Your task to perform on an android device: Go to accessibility settings Image 0: 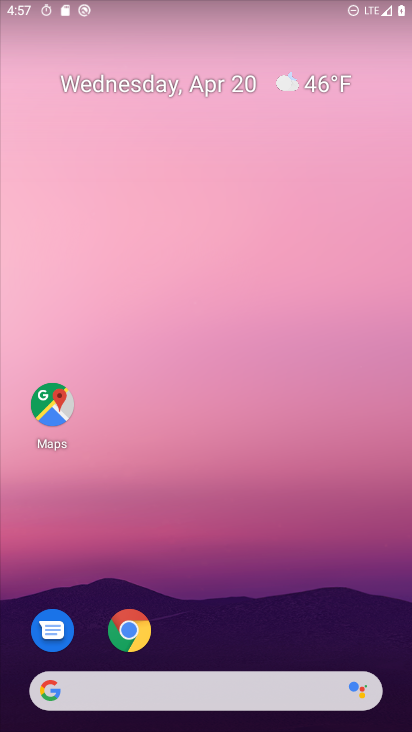
Step 0: drag from (287, 330) to (277, 26)
Your task to perform on an android device: Go to accessibility settings Image 1: 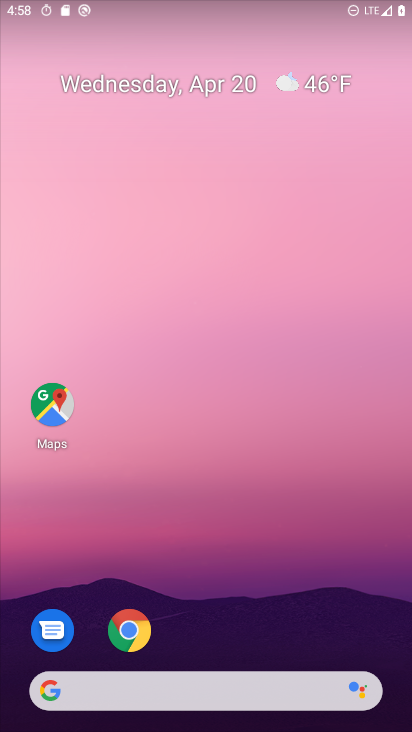
Step 1: drag from (285, 677) to (295, 5)
Your task to perform on an android device: Go to accessibility settings Image 2: 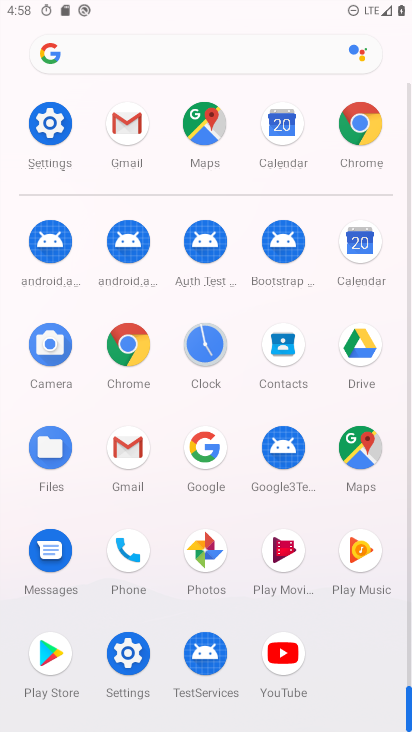
Step 2: click (121, 654)
Your task to perform on an android device: Go to accessibility settings Image 3: 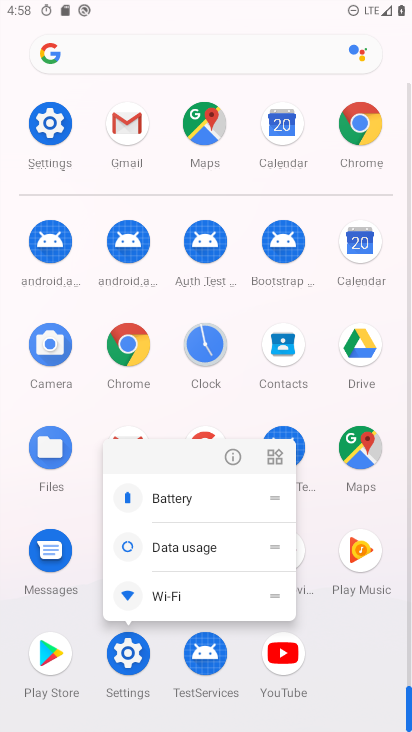
Step 3: click (142, 658)
Your task to perform on an android device: Go to accessibility settings Image 4: 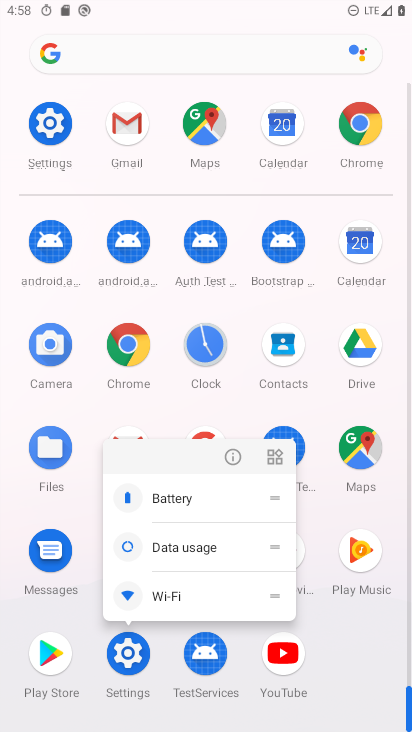
Step 4: click (116, 648)
Your task to perform on an android device: Go to accessibility settings Image 5: 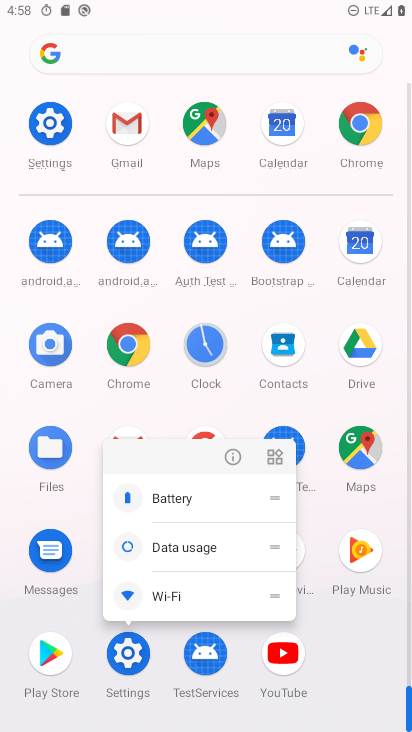
Step 5: click (116, 648)
Your task to perform on an android device: Go to accessibility settings Image 6: 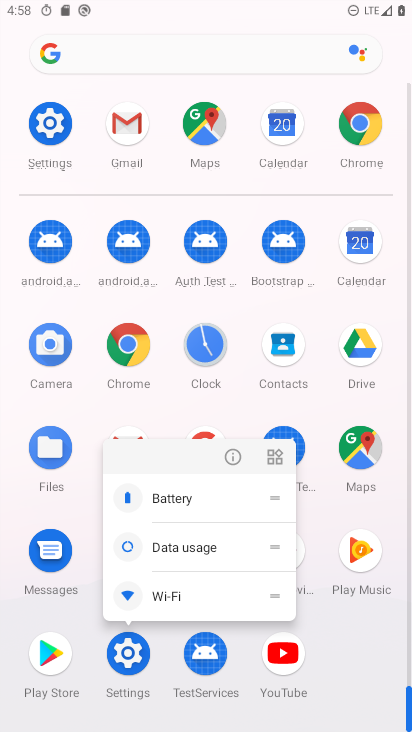
Step 6: click (116, 648)
Your task to perform on an android device: Go to accessibility settings Image 7: 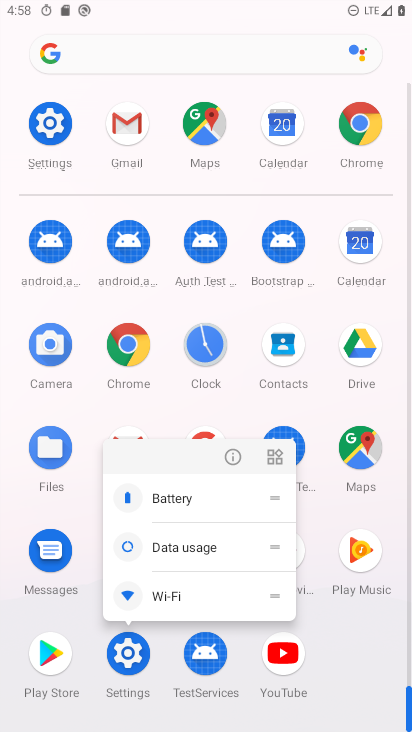
Step 7: click (116, 648)
Your task to perform on an android device: Go to accessibility settings Image 8: 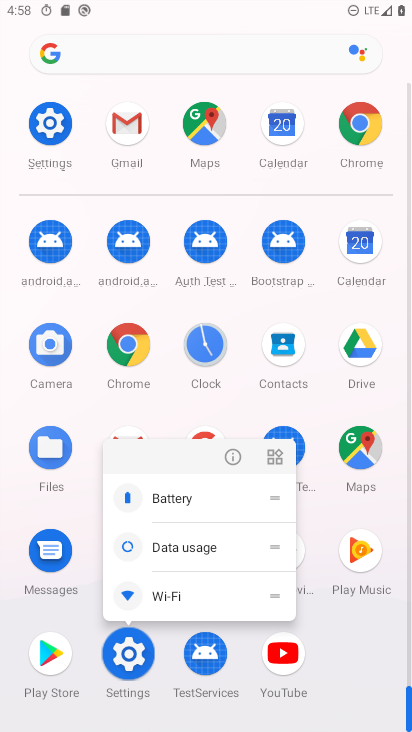
Step 8: click (116, 648)
Your task to perform on an android device: Go to accessibility settings Image 9: 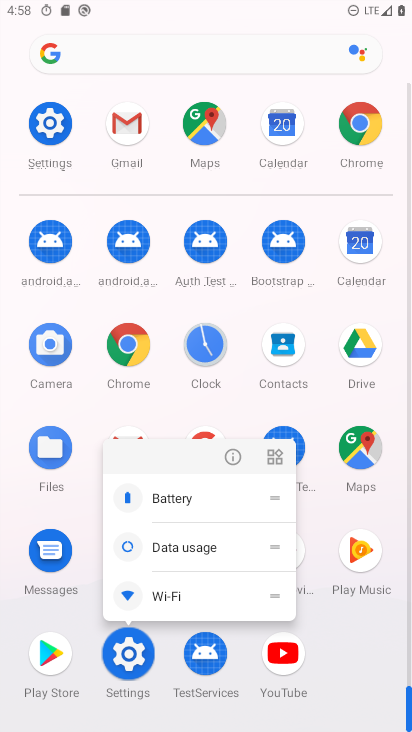
Step 9: click (116, 648)
Your task to perform on an android device: Go to accessibility settings Image 10: 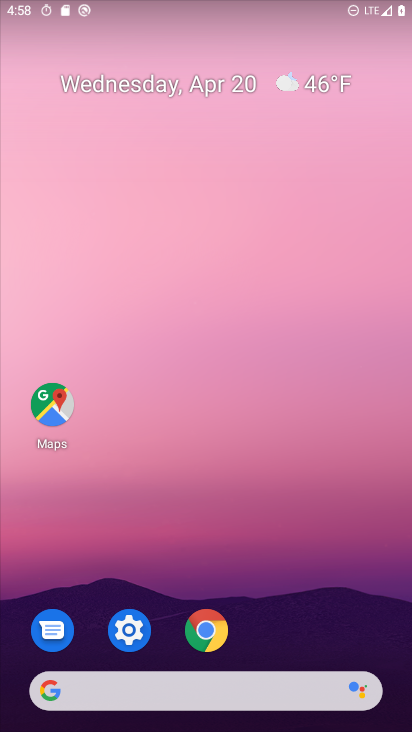
Step 10: drag from (241, 469) to (229, 1)
Your task to perform on an android device: Go to accessibility settings Image 11: 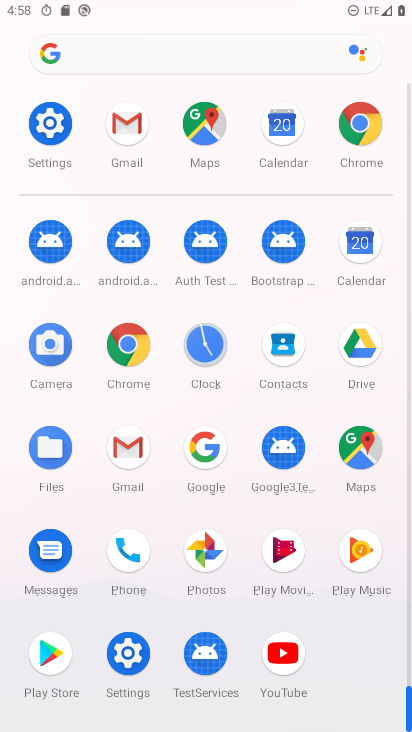
Step 11: click (118, 651)
Your task to perform on an android device: Go to accessibility settings Image 12: 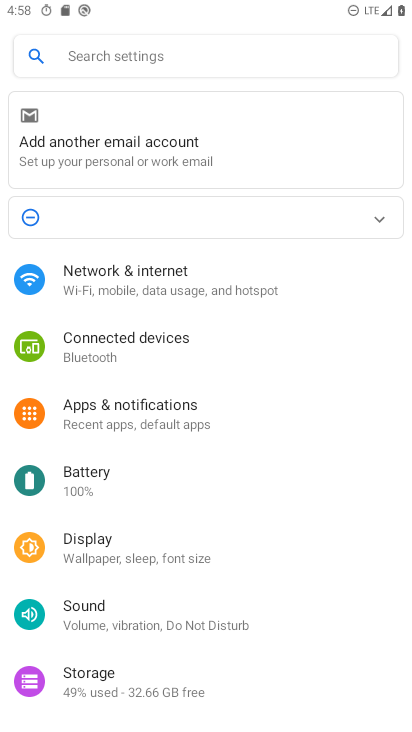
Step 12: drag from (178, 708) to (262, 104)
Your task to perform on an android device: Go to accessibility settings Image 13: 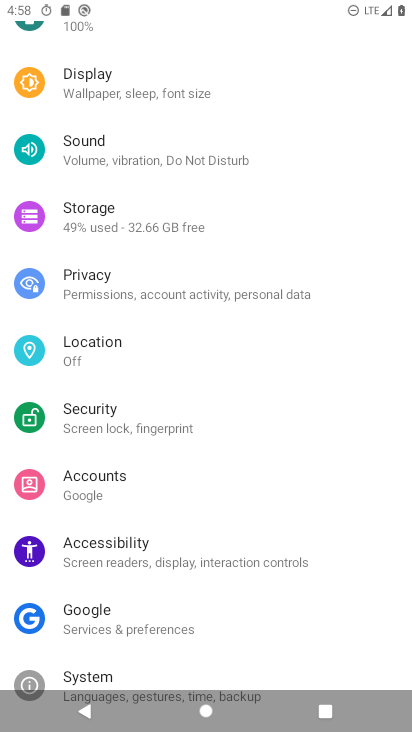
Step 13: drag from (217, 574) to (213, 41)
Your task to perform on an android device: Go to accessibility settings Image 14: 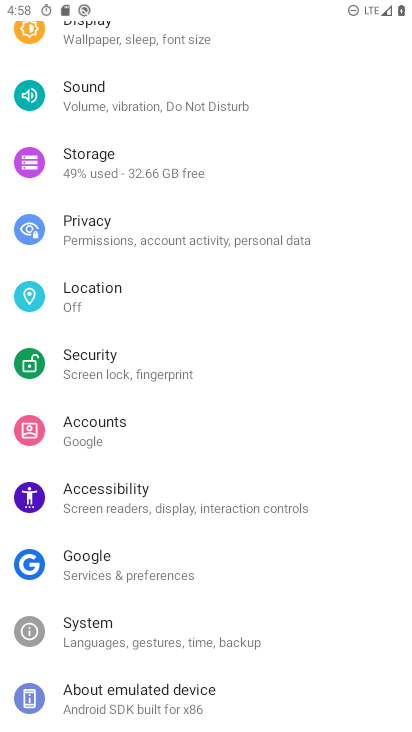
Step 14: click (181, 496)
Your task to perform on an android device: Go to accessibility settings Image 15: 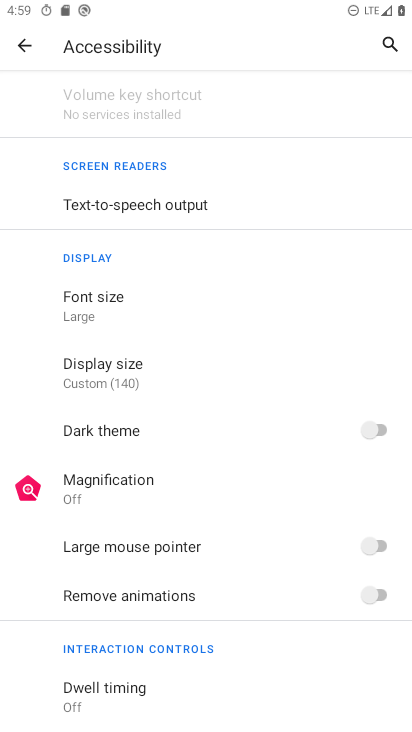
Step 15: task complete